Your task to perform on an android device: Clear all items from cart on costco. Search for macbook pro 13 inch on costco, select the first entry, add it to the cart, then select checkout. Image 0: 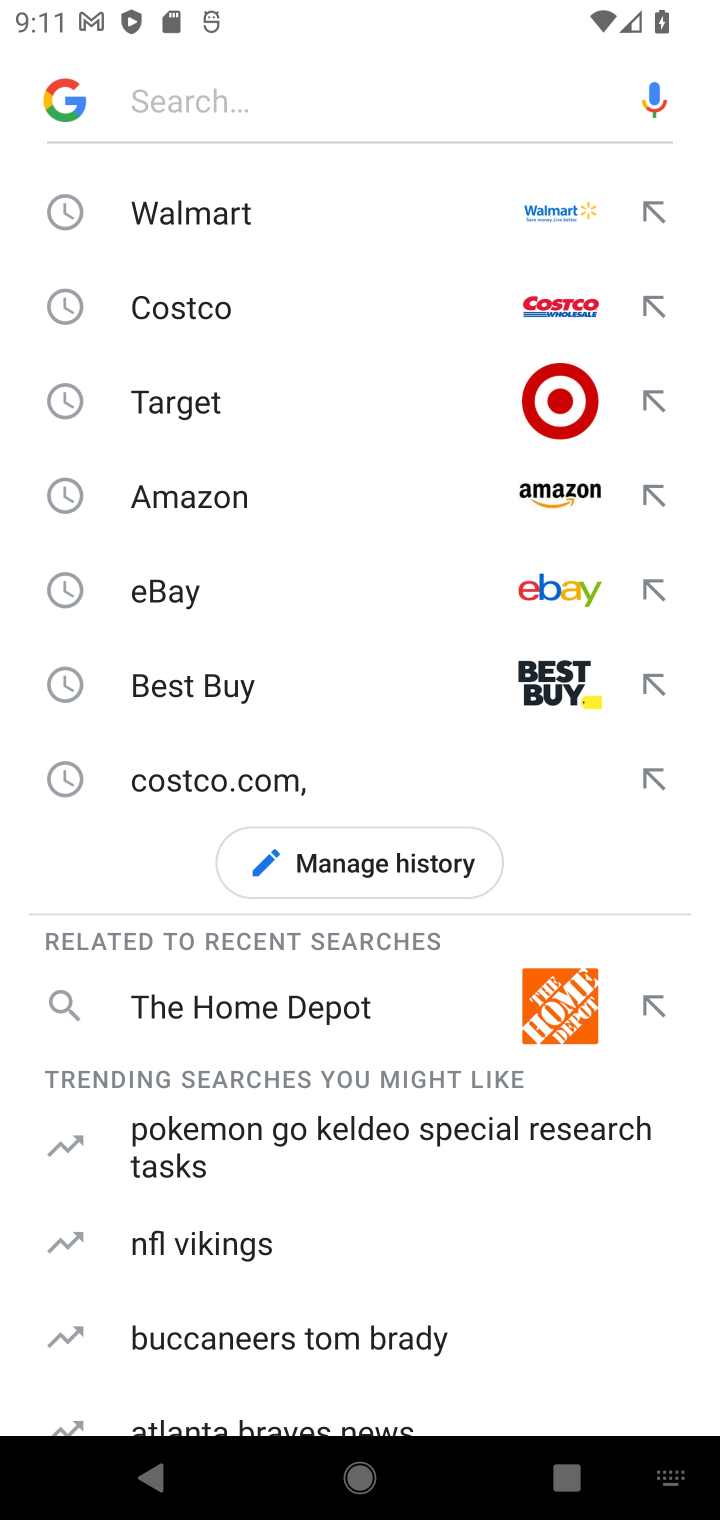
Step 0: click (345, 326)
Your task to perform on an android device: Clear all items from cart on costco. Search for macbook pro 13 inch on costco, select the first entry, add it to the cart, then select checkout. Image 1: 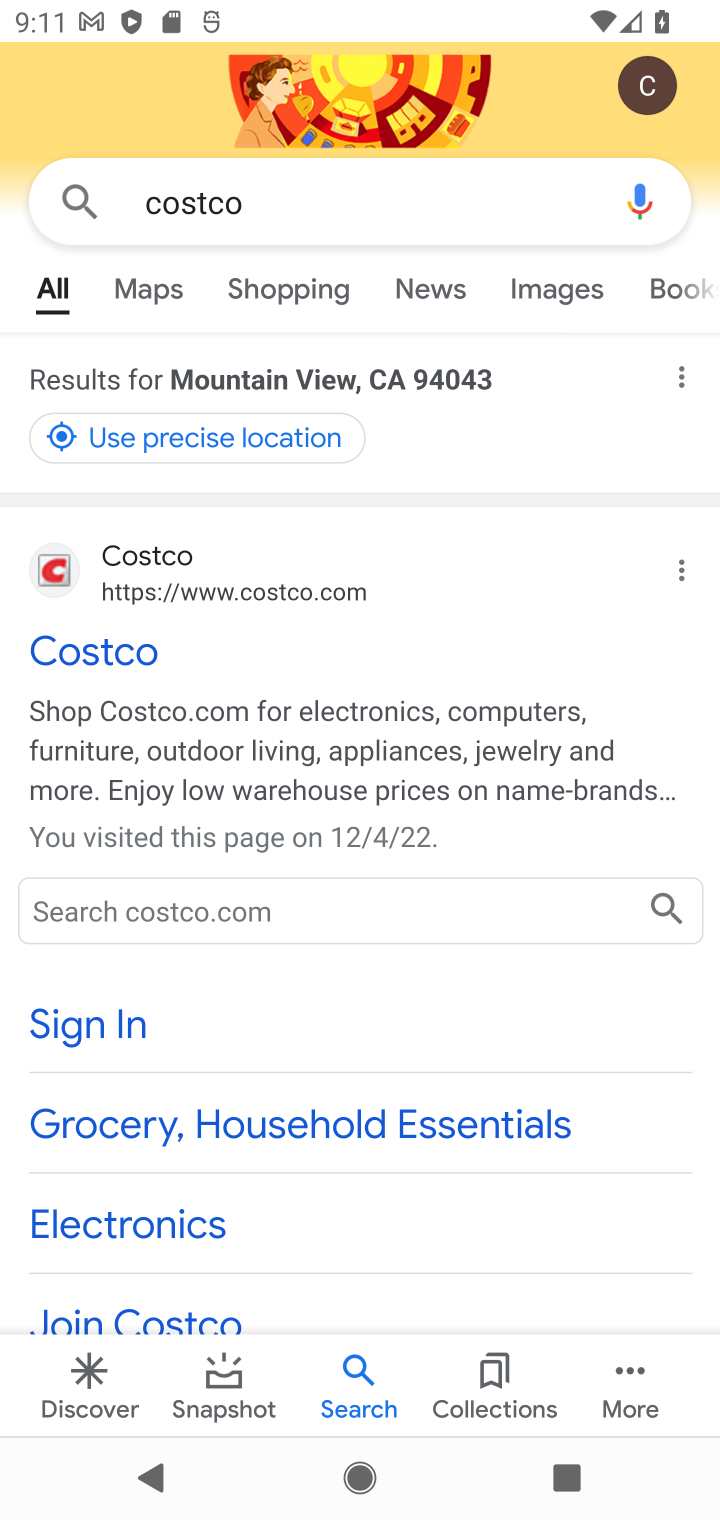
Step 1: click (107, 645)
Your task to perform on an android device: Clear all items from cart on costco. Search for macbook pro 13 inch on costco, select the first entry, add it to the cart, then select checkout. Image 2: 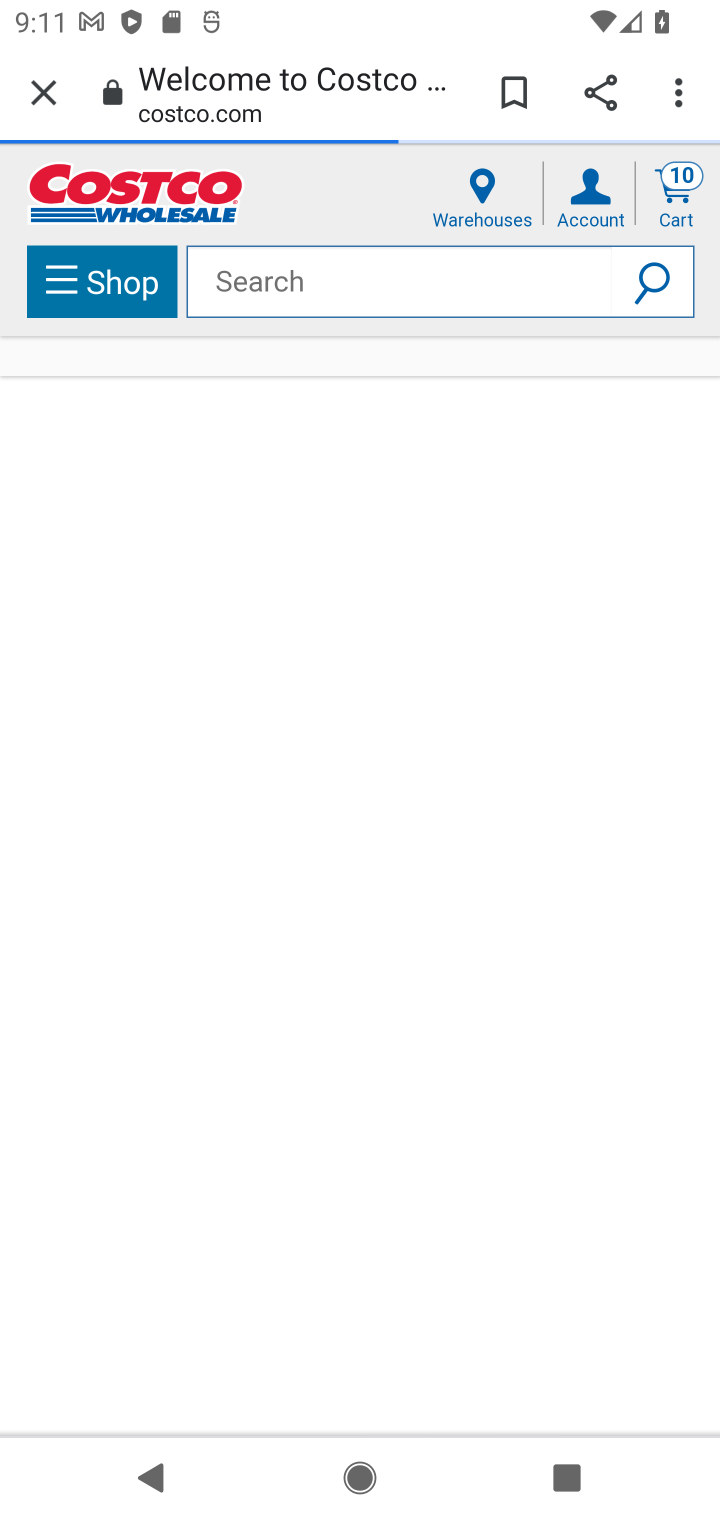
Step 2: click (402, 299)
Your task to perform on an android device: Clear all items from cart on costco. Search for macbook pro 13 inch on costco, select the first entry, add it to the cart, then select checkout. Image 3: 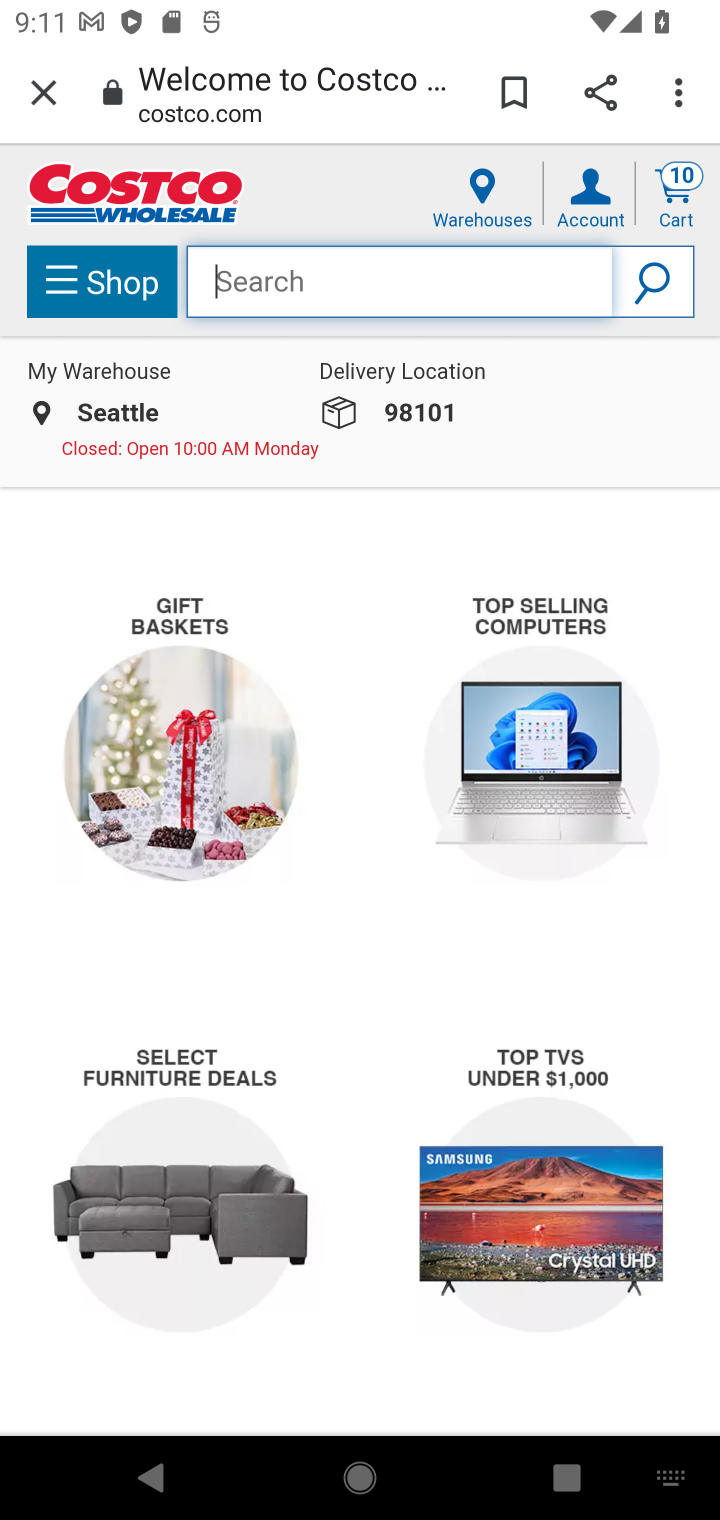
Step 3: type "macbook pro"
Your task to perform on an android device: Clear all items from cart on costco. Search for macbook pro 13 inch on costco, select the first entry, add it to the cart, then select checkout. Image 4: 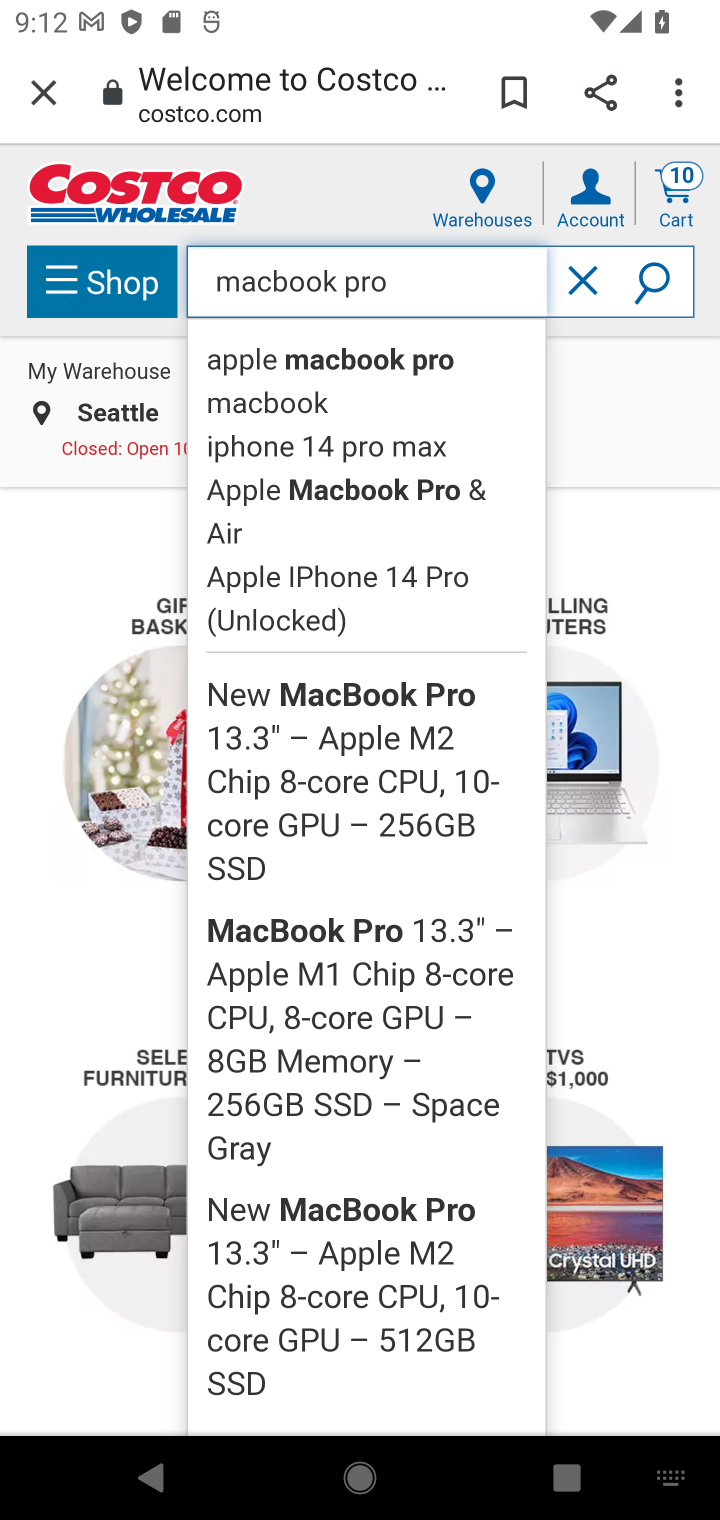
Step 4: click (354, 366)
Your task to perform on an android device: Clear all items from cart on costco. Search for macbook pro 13 inch on costco, select the first entry, add it to the cart, then select checkout. Image 5: 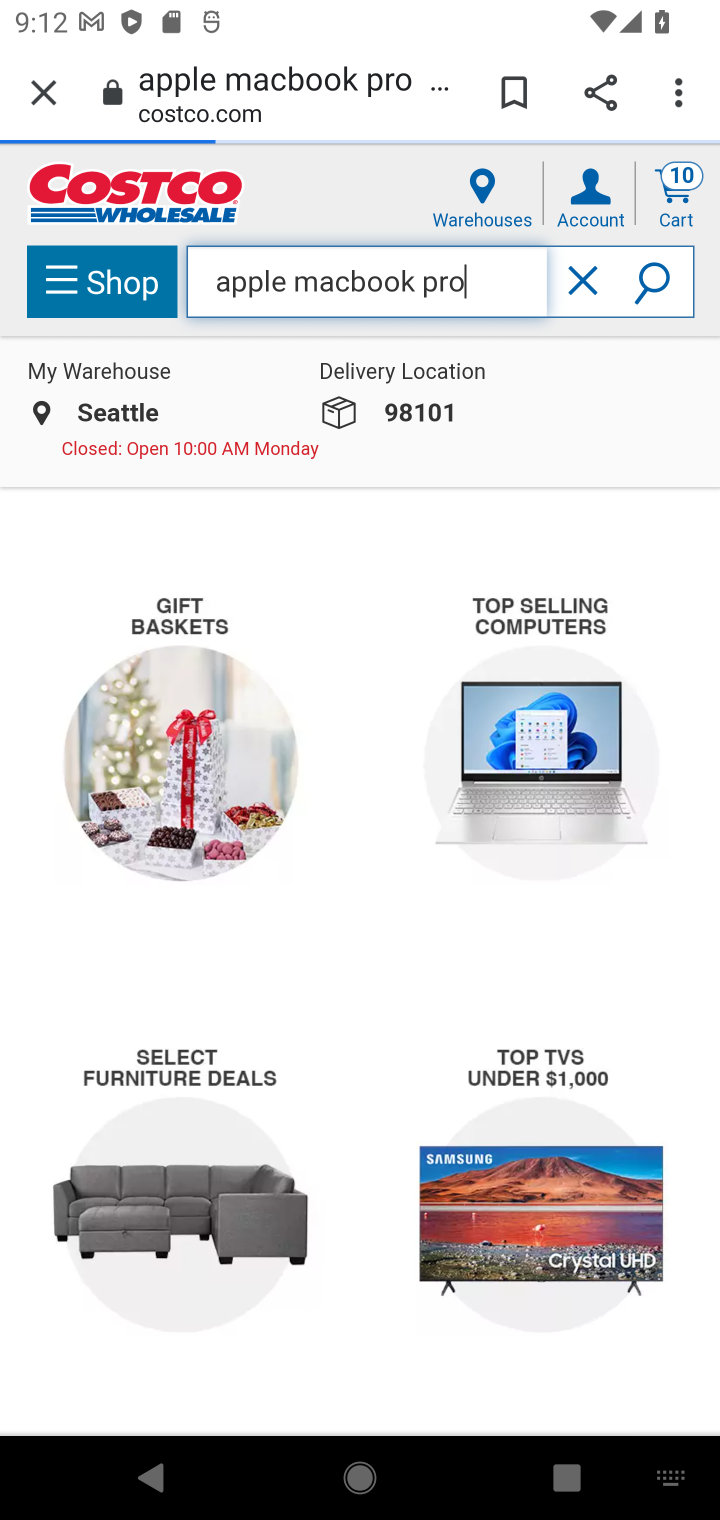
Step 5: click (665, 281)
Your task to perform on an android device: Clear all items from cart on costco. Search for macbook pro 13 inch on costco, select the first entry, add it to the cart, then select checkout. Image 6: 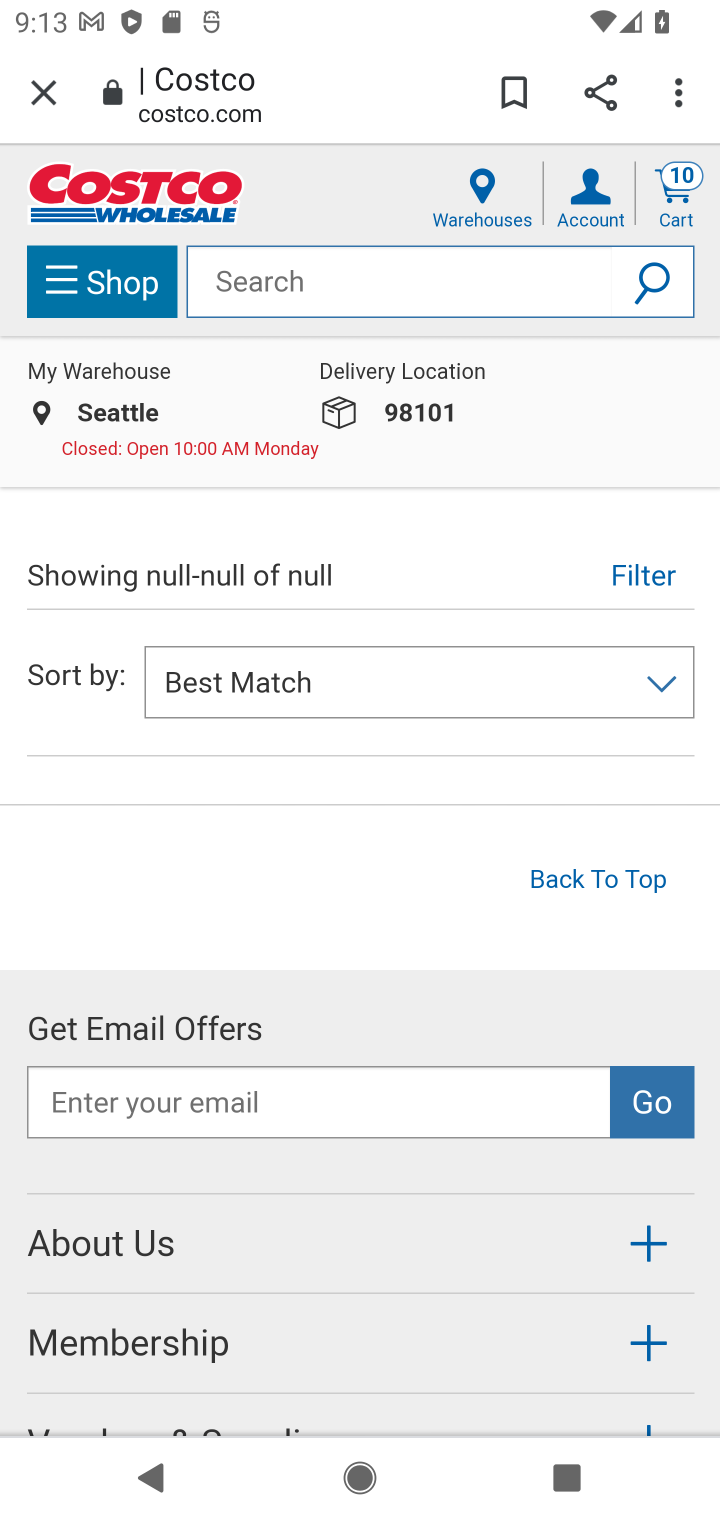
Step 6: task complete